Your task to perform on an android device: Open CNN.com Image 0: 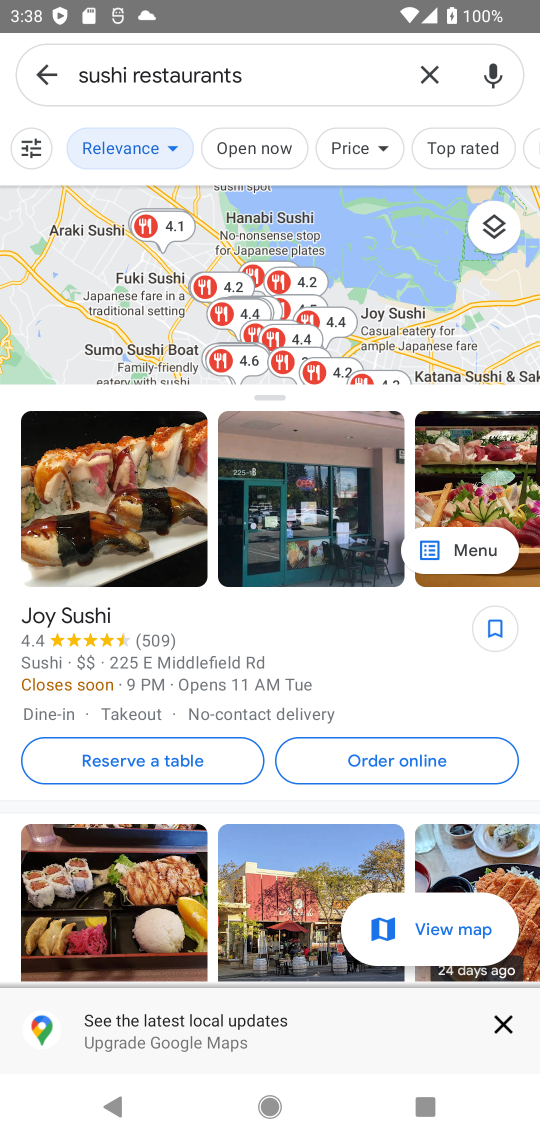
Step 0: press home button
Your task to perform on an android device: Open CNN.com Image 1: 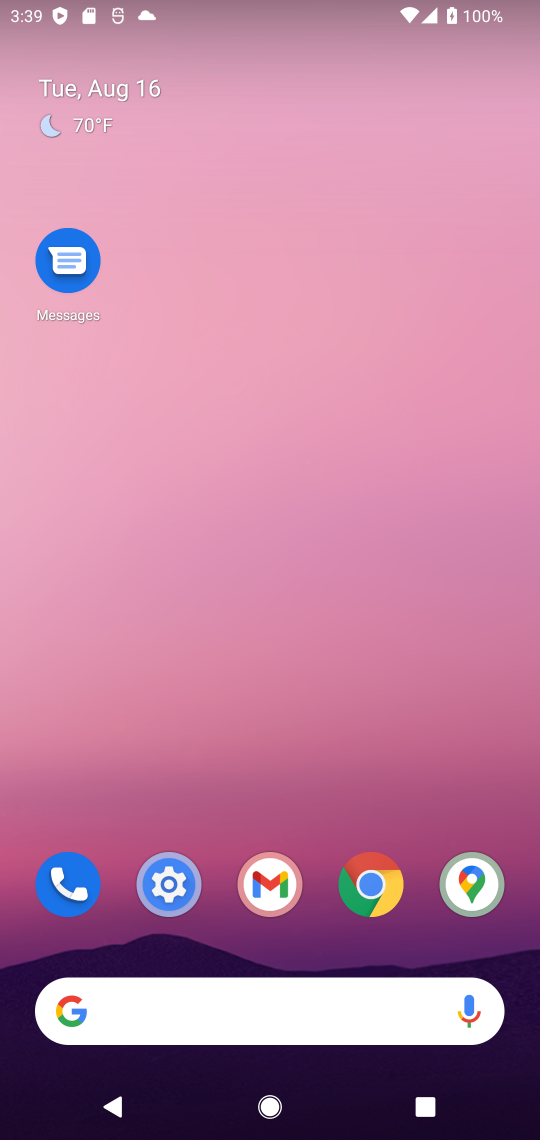
Step 1: click (126, 1004)
Your task to perform on an android device: Open CNN.com Image 2: 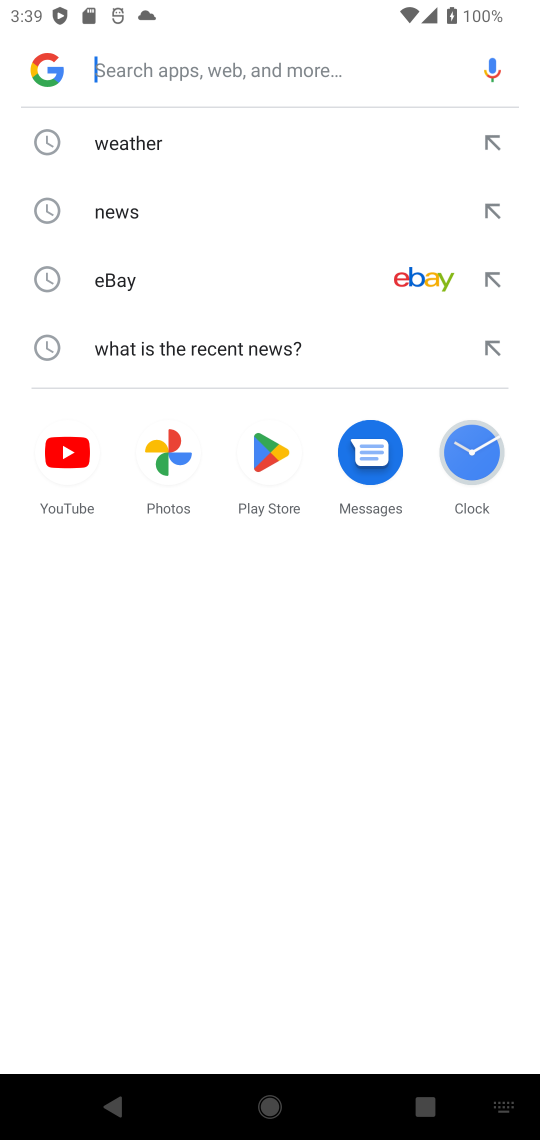
Step 2: type "CNN.com"
Your task to perform on an android device: Open CNN.com Image 3: 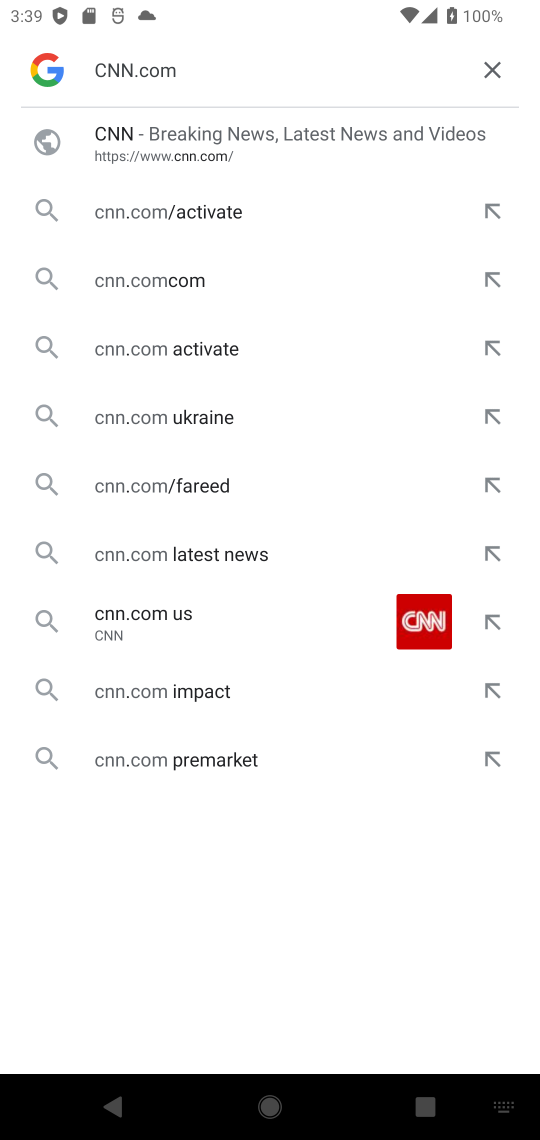
Step 3: click (102, 151)
Your task to perform on an android device: Open CNN.com Image 4: 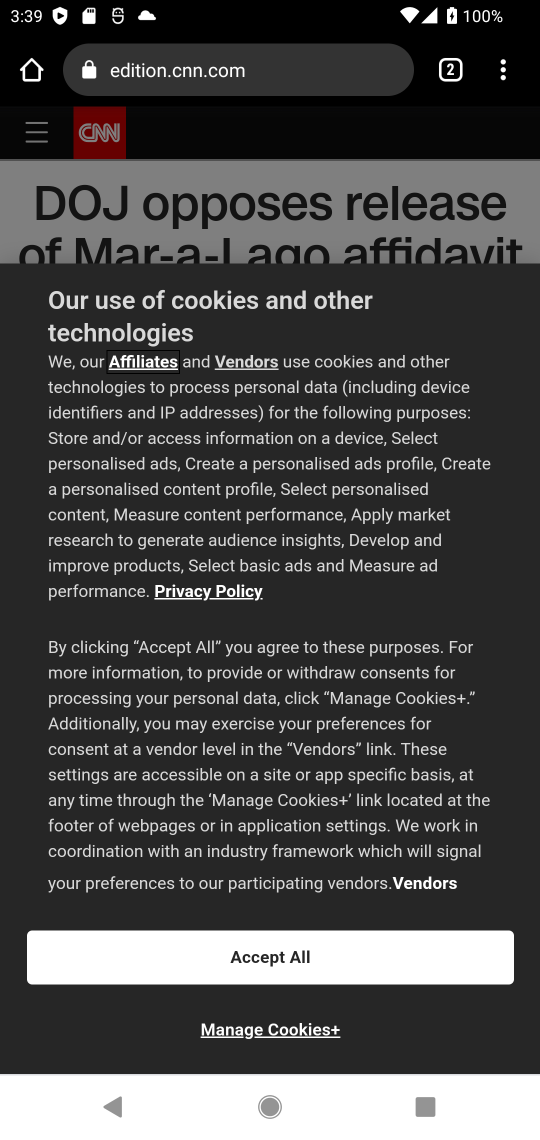
Step 4: task complete